Your task to perform on an android device: Search for sushi restaurants on Maps Image 0: 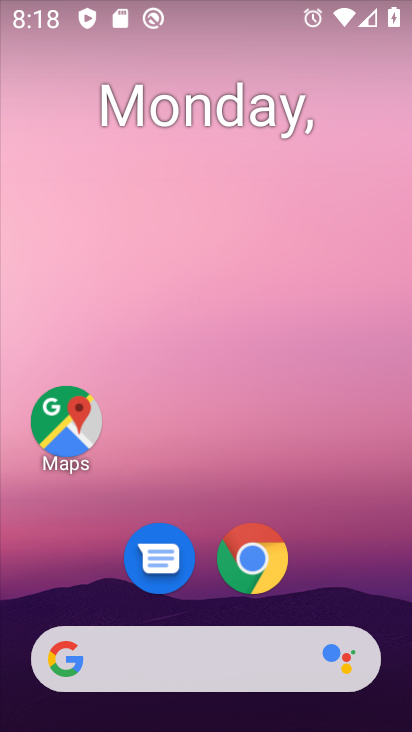
Step 0: click (68, 422)
Your task to perform on an android device: Search for sushi restaurants on Maps Image 1: 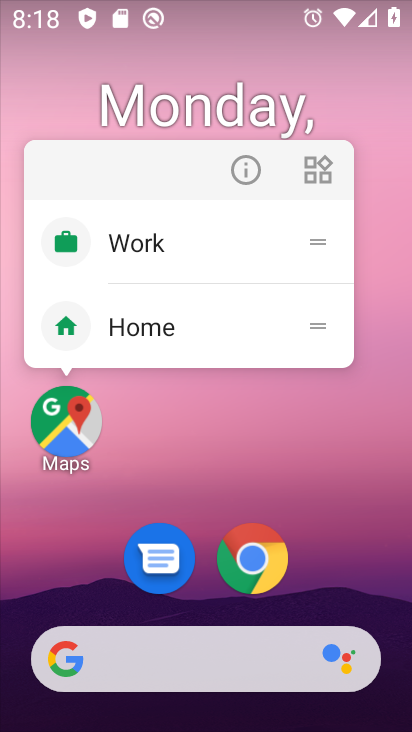
Step 1: click (84, 401)
Your task to perform on an android device: Search for sushi restaurants on Maps Image 2: 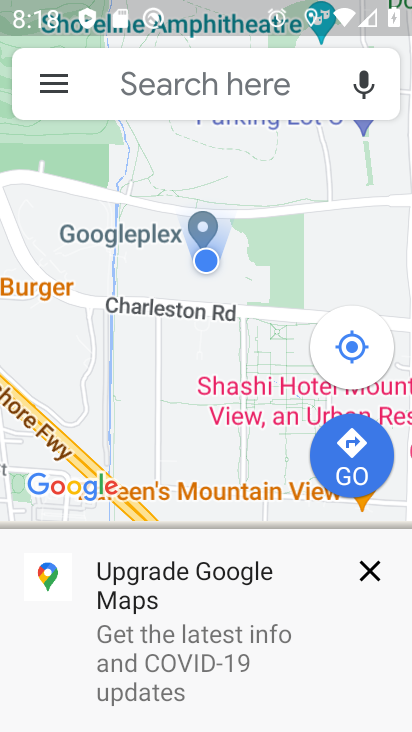
Step 2: click (185, 89)
Your task to perform on an android device: Search for sushi restaurants on Maps Image 3: 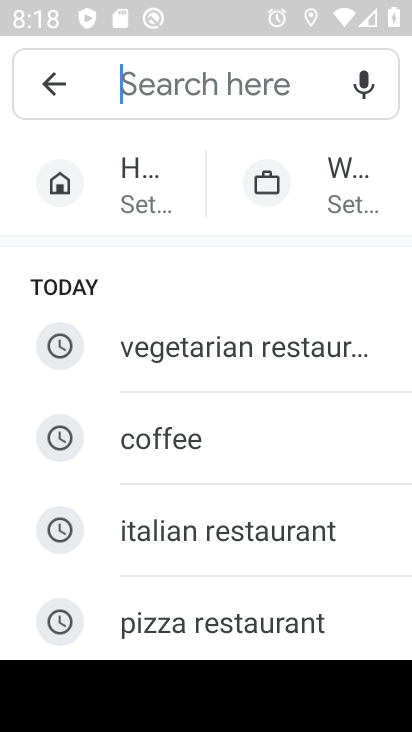
Step 3: type "sushi restaurants"
Your task to perform on an android device: Search for sushi restaurants on Maps Image 4: 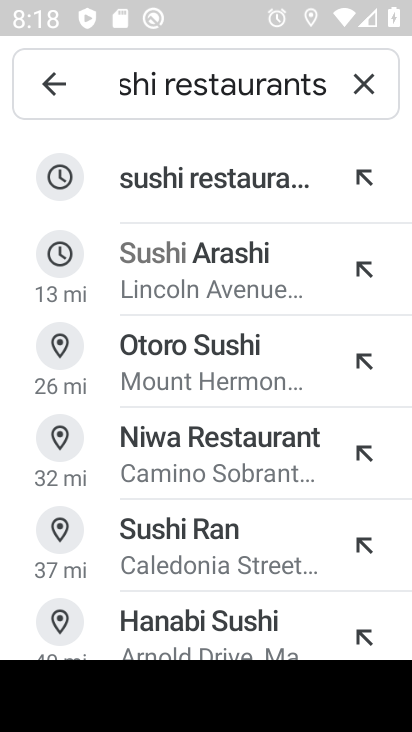
Step 4: press enter
Your task to perform on an android device: Search for sushi restaurants on Maps Image 5: 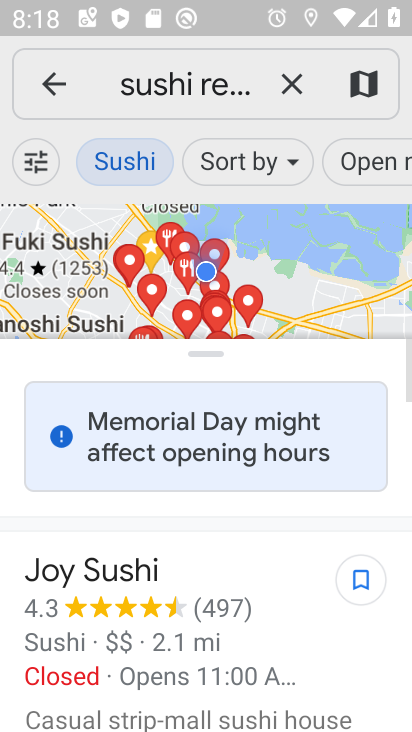
Step 5: task complete